Your task to perform on an android device: Open Yahoo.com Image 0: 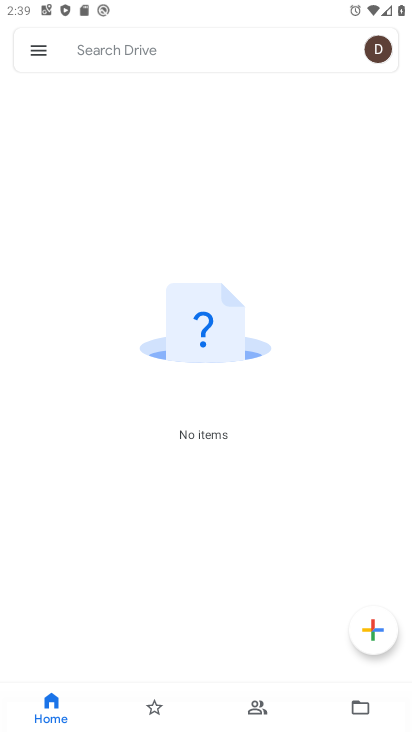
Step 0: press home button
Your task to perform on an android device: Open Yahoo.com Image 1: 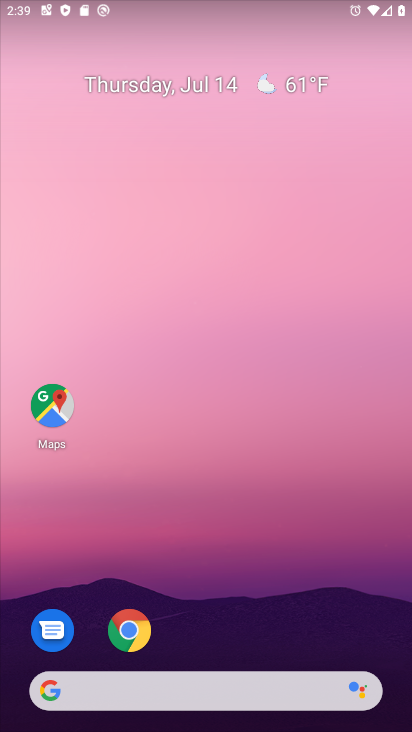
Step 1: click (130, 632)
Your task to perform on an android device: Open Yahoo.com Image 2: 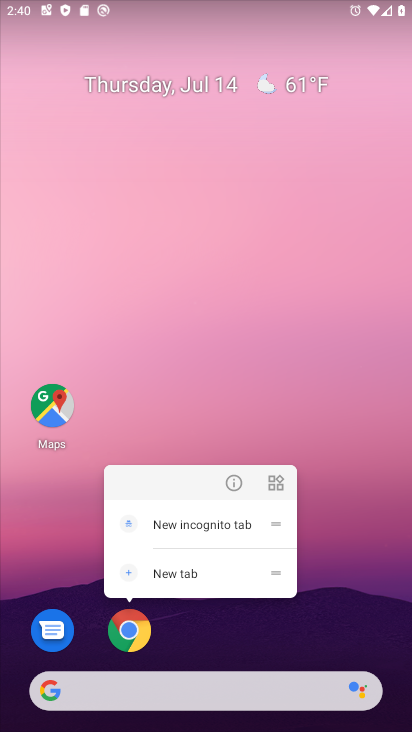
Step 2: click (135, 631)
Your task to perform on an android device: Open Yahoo.com Image 3: 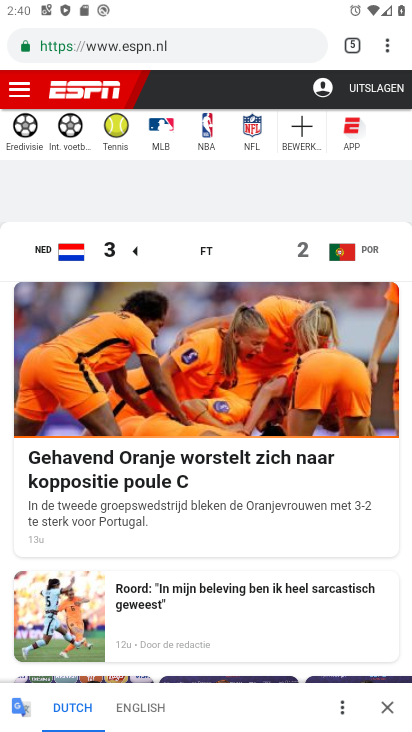
Step 3: drag from (387, 50) to (243, 143)
Your task to perform on an android device: Open Yahoo.com Image 4: 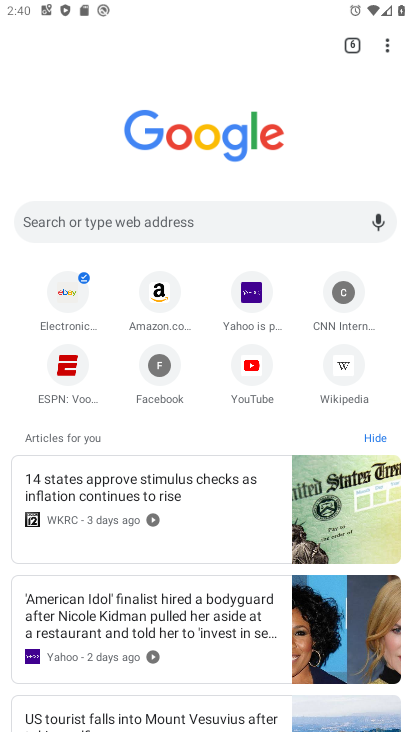
Step 4: click (251, 297)
Your task to perform on an android device: Open Yahoo.com Image 5: 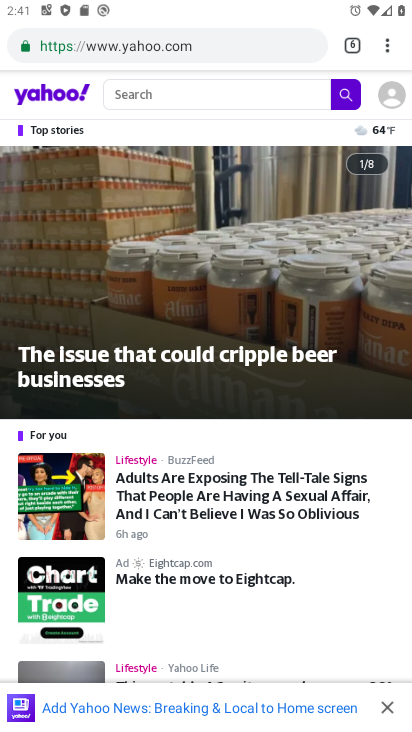
Step 5: task complete